Your task to perform on an android device: turn on notifications settings in the gmail app Image 0: 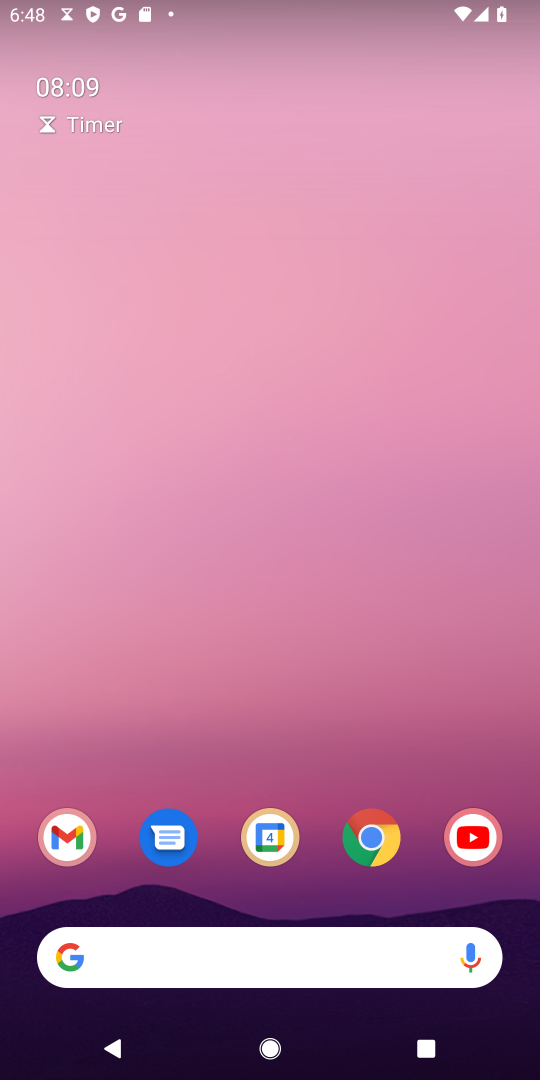
Step 0: press home button
Your task to perform on an android device: turn on notifications settings in the gmail app Image 1: 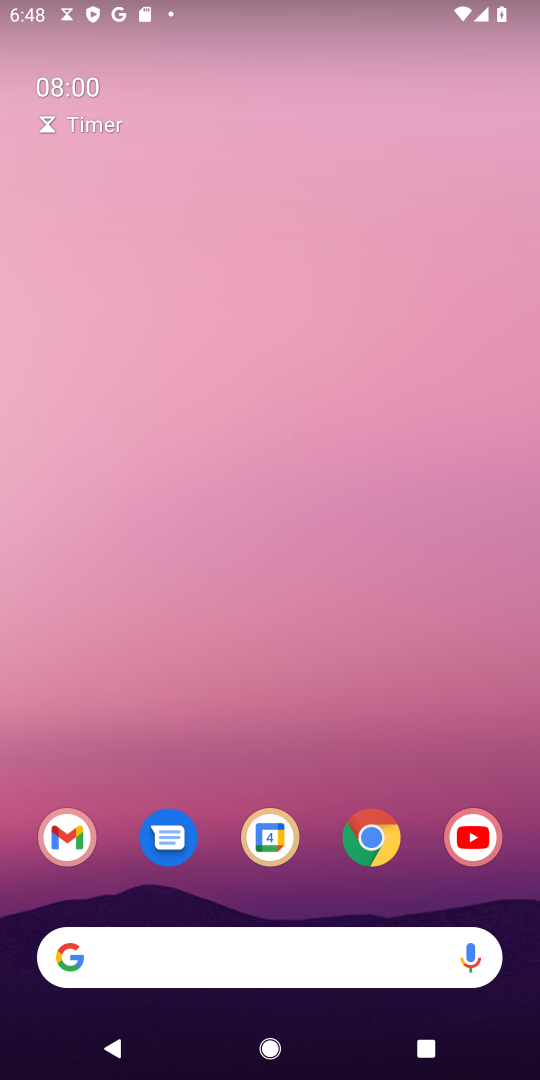
Step 1: drag from (351, 289) to (356, 67)
Your task to perform on an android device: turn on notifications settings in the gmail app Image 2: 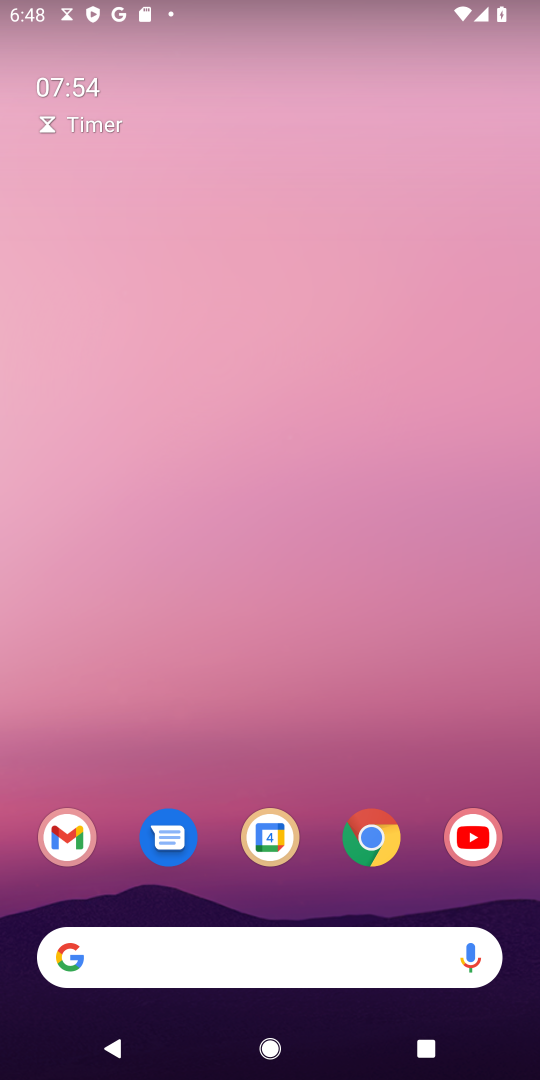
Step 2: click (67, 836)
Your task to perform on an android device: turn on notifications settings in the gmail app Image 3: 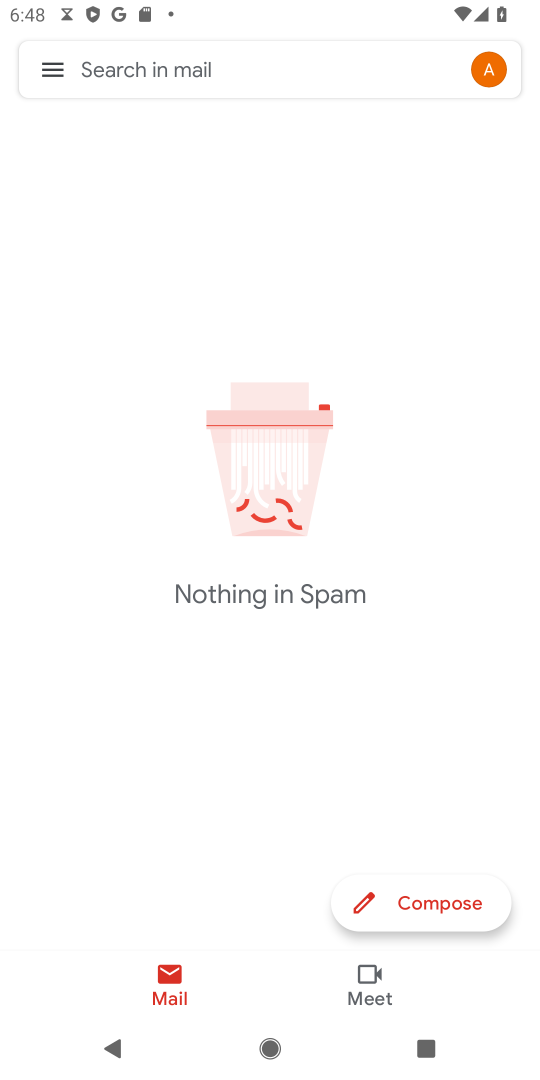
Step 3: click (41, 74)
Your task to perform on an android device: turn on notifications settings in the gmail app Image 4: 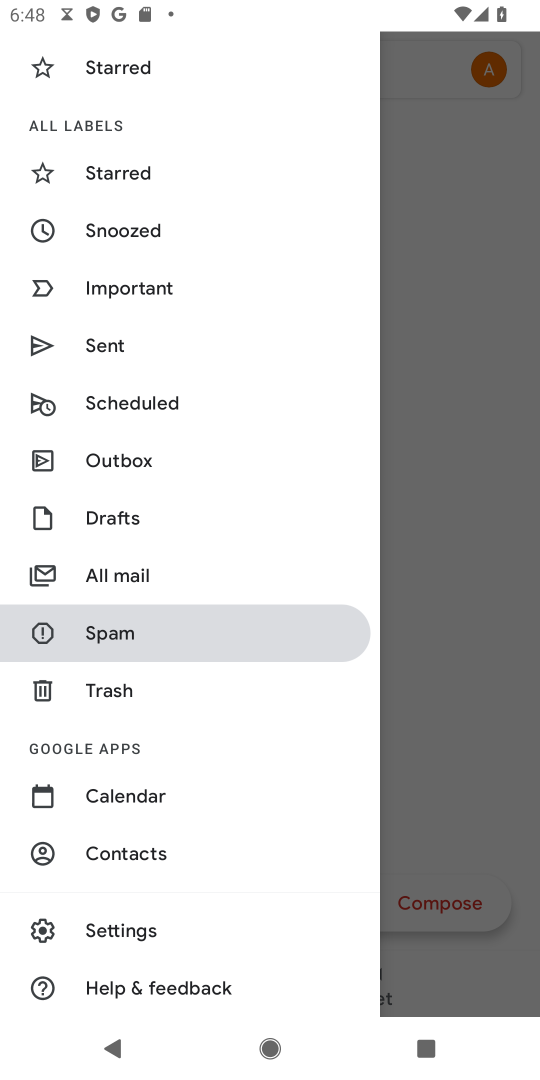
Step 4: click (170, 923)
Your task to perform on an android device: turn on notifications settings in the gmail app Image 5: 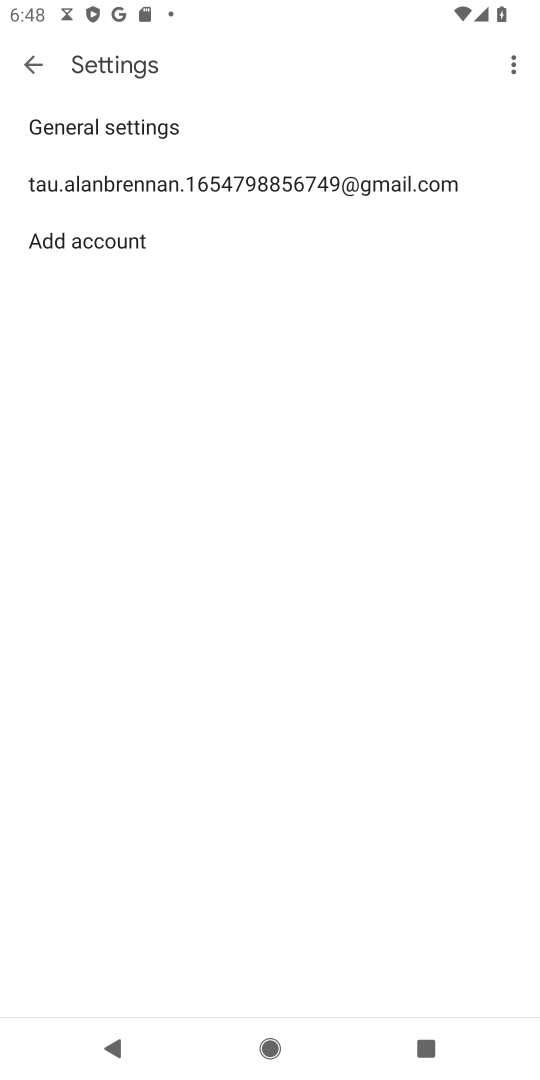
Step 5: click (185, 128)
Your task to perform on an android device: turn on notifications settings in the gmail app Image 6: 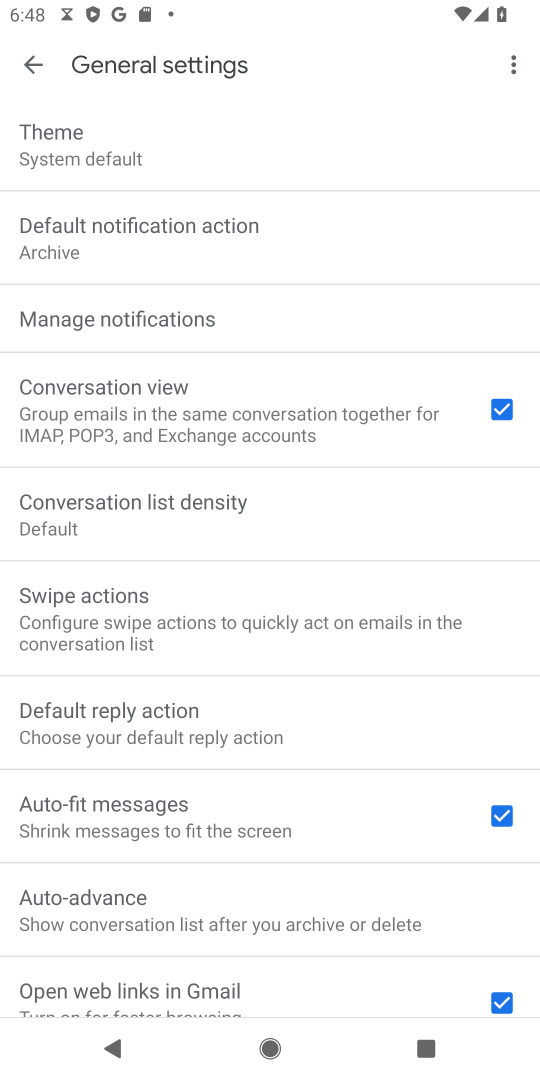
Step 6: drag from (133, 235) to (221, 993)
Your task to perform on an android device: turn on notifications settings in the gmail app Image 7: 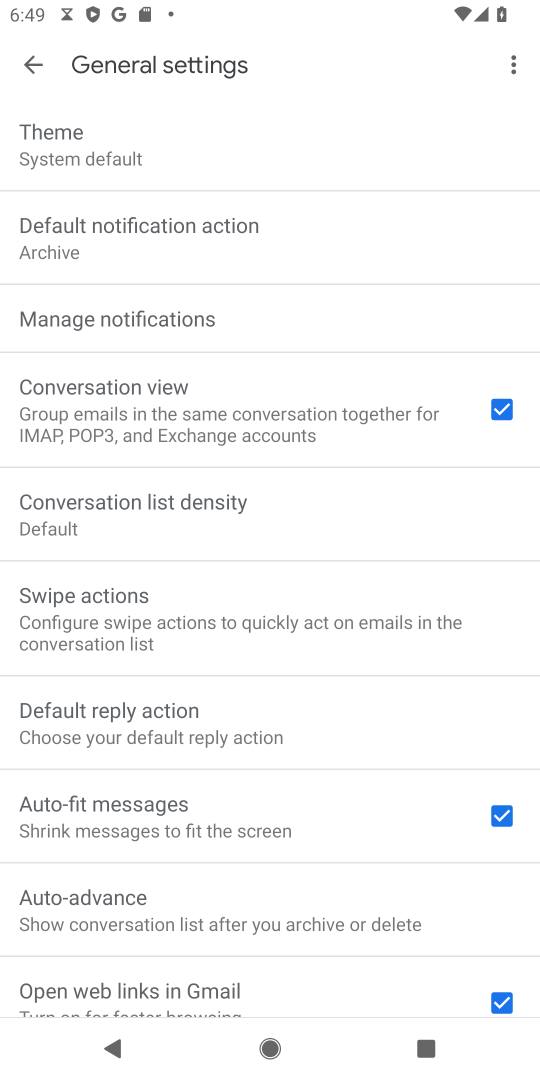
Step 7: click (181, 332)
Your task to perform on an android device: turn on notifications settings in the gmail app Image 8: 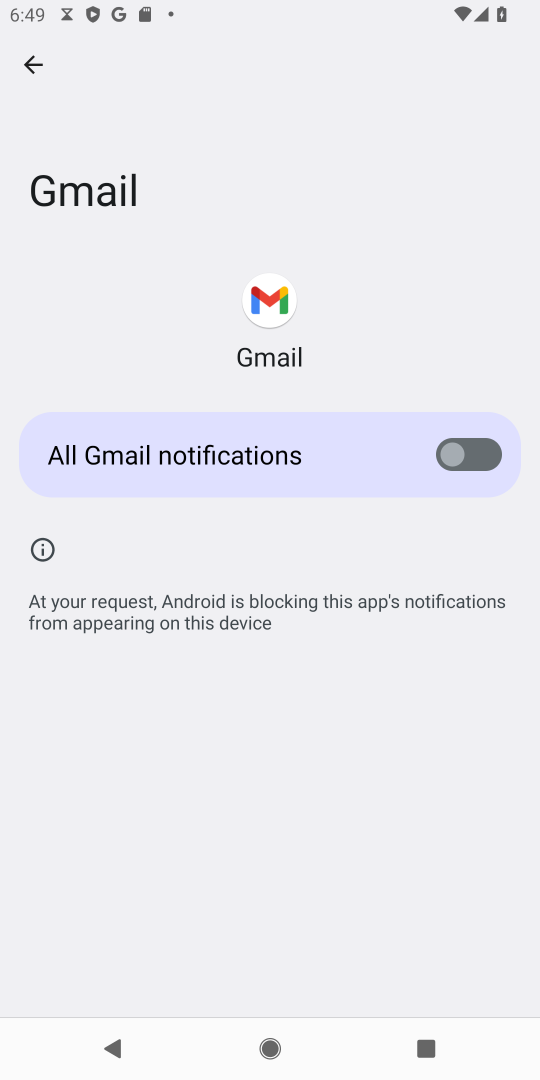
Step 8: click (468, 443)
Your task to perform on an android device: turn on notifications settings in the gmail app Image 9: 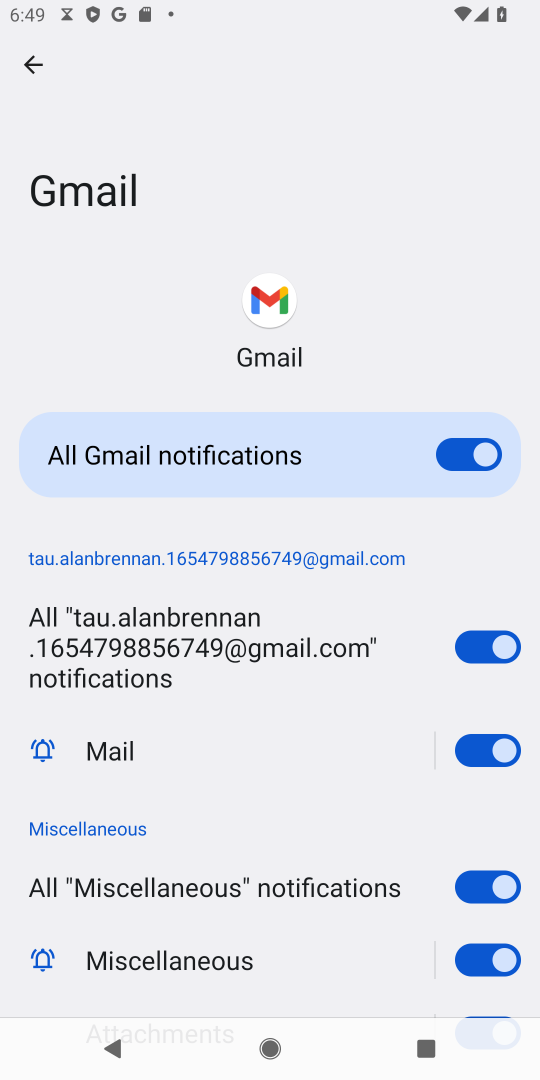
Step 9: task complete